Your task to perform on an android device: open wifi settings Image 0: 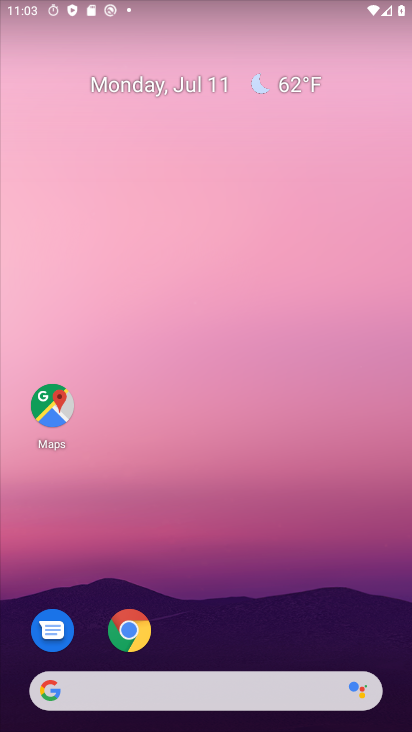
Step 0: drag from (325, 646) to (374, 6)
Your task to perform on an android device: open wifi settings Image 1: 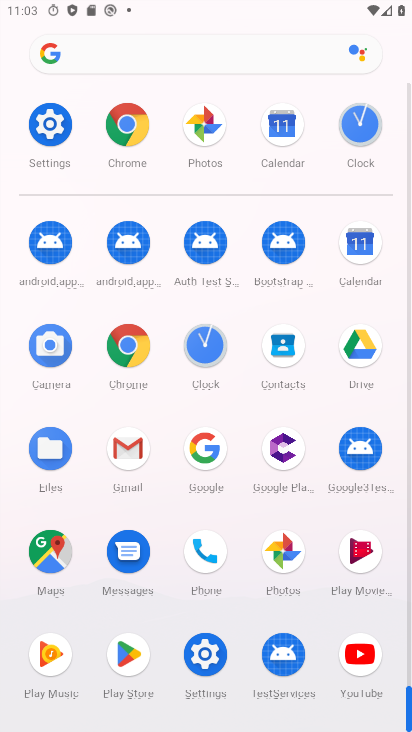
Step 1: click (44, 114)
Your task to perform on an android device: open wifi settings Image 2: 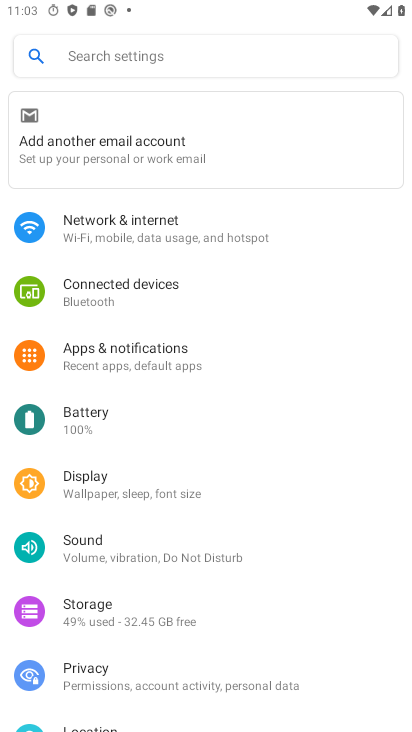
Step 2: click (152, 239)
Your task to perform on an android device: open wifi settings Image 3: 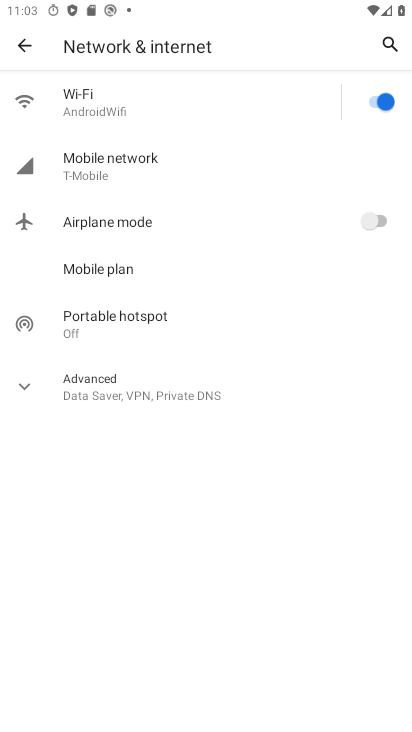
Step 3: click (76, 96)
Your task to perform on an android device: open wifi settings Image 4: 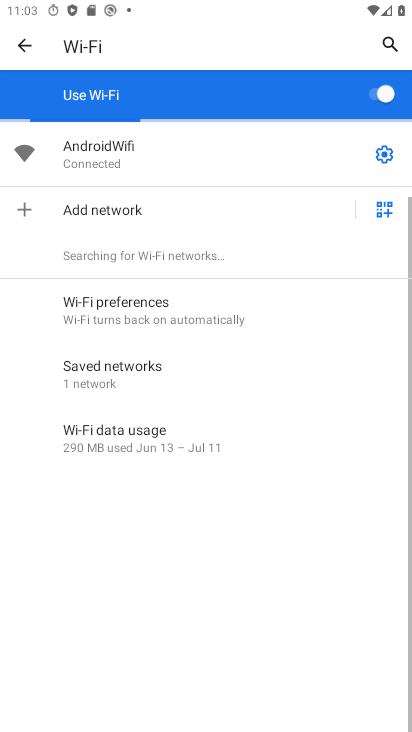
Step 4: task complete